Your task to perform on an android device: Look up the best rated Nike shoes on Nike.com Image 0: 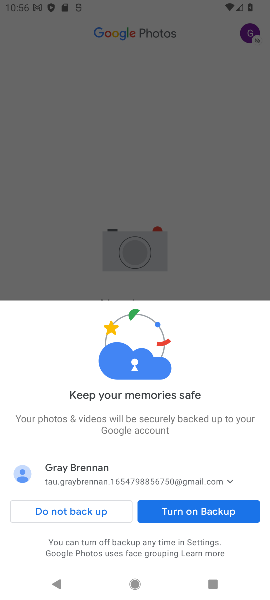
Step 0: press home button
Your task to perform on an android device: Look up the best rated Nike shoes on Nike.com Image 1: 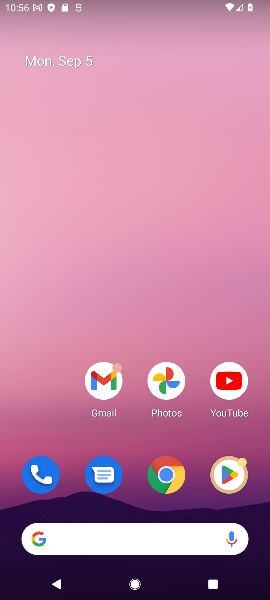
Step 1: click (117, 537)
Your task to perform on an android device: Look up the best rated Nike shoes on Nike.com Image 2: 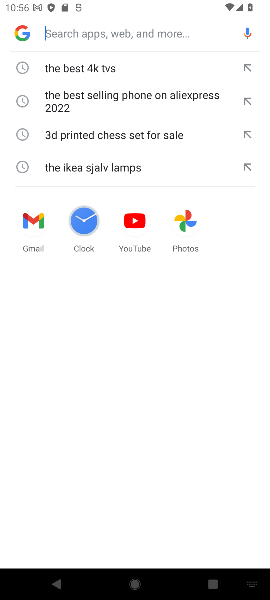
Step 2: type " the best rated Nike shoes on Nike.com"
Your task to perform on an android device: Look up the best rated Nike shoes on Nike.com Image 3: 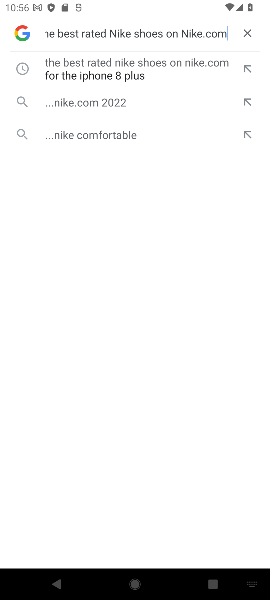
Step 3: click (128, 82)
Your task to perform on an android device: Look up the best rated Nike shoes on Nike.com Image 4: 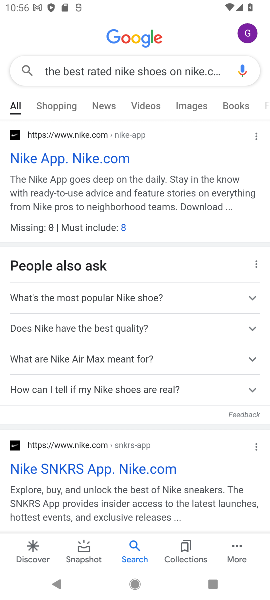
Step 4: task complete